Your task to perform on an android device: set the stopwatch Image 0: 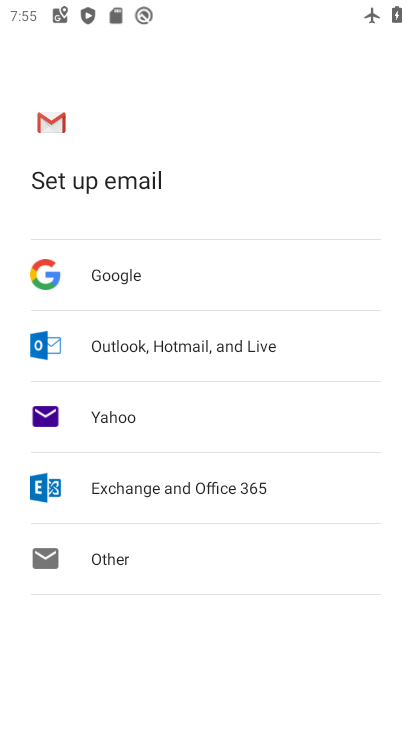
Step 0: press home button
Your task to perform on an android device: set the stopwatch Image 1: 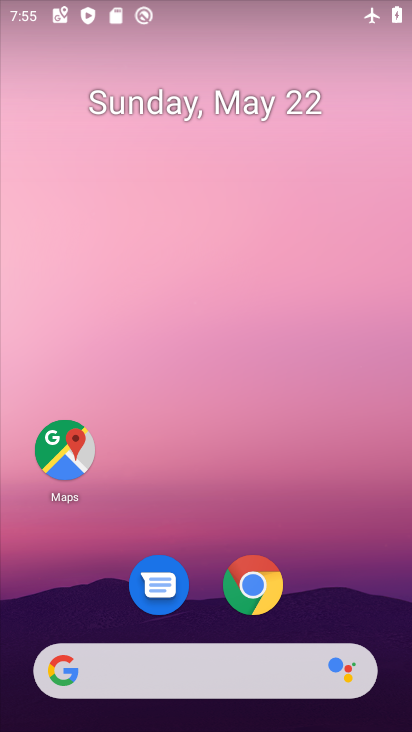
Step 1: drag from (196, 484) to (200, 43)
Your task to perform on an android device: set the stopwatch Image 2: 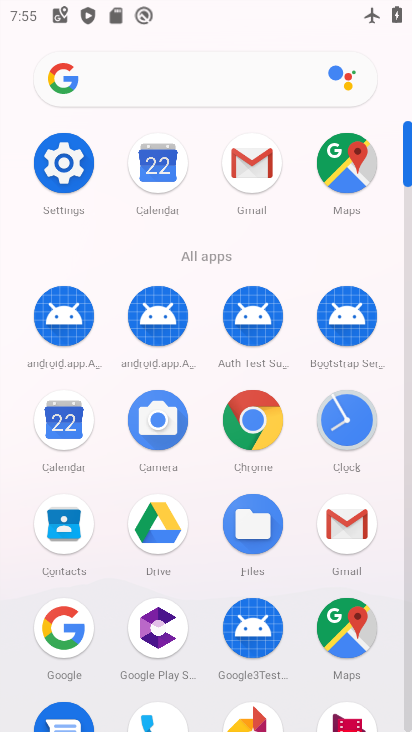
Step 2: click (343, 415)
Your task to perform on an android device: set the stopwatch Image 3: 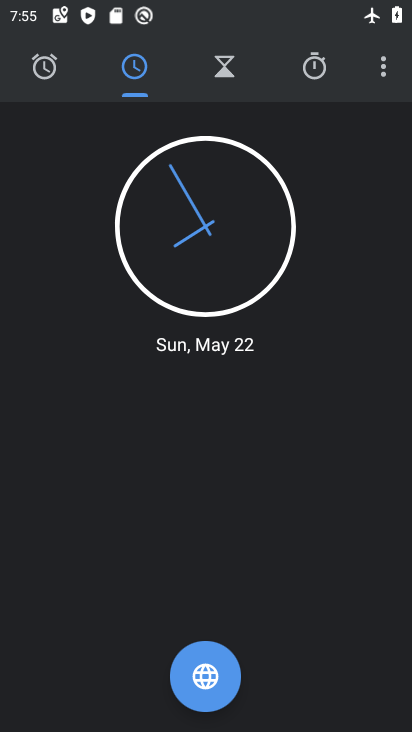
Step 3: click (319, 73)
Your task to perform on an android device: set the stopwatch Image 4: 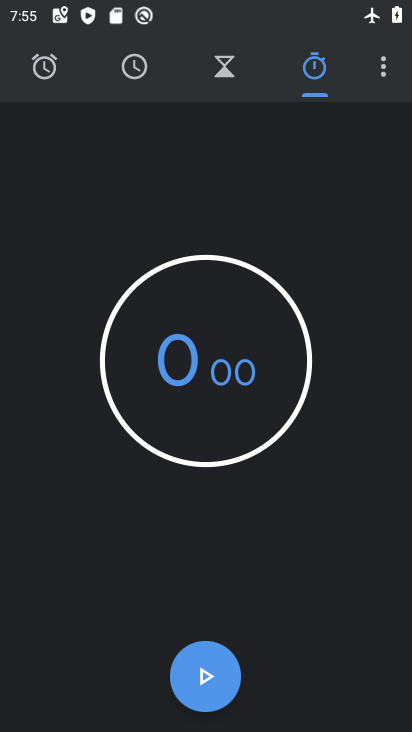
Step 4: task complete